Your task to perform on an android device: turn on the 12-hour format for clock Image 0: 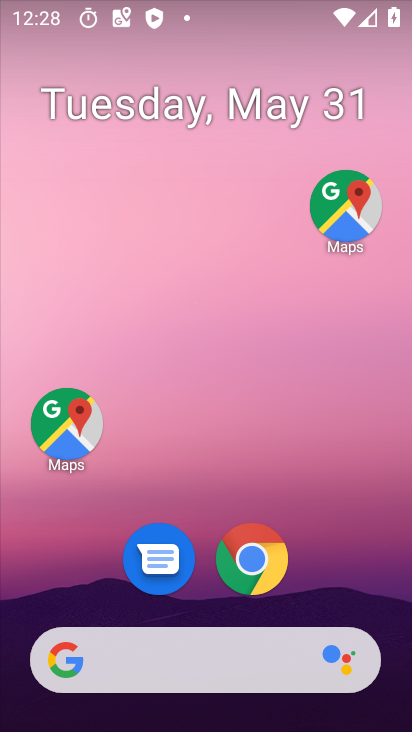
Step 0: drag from (363, 535) to (367, 88)
Your task to perform on an android device: turn on the 12-hour format for clock Image 1: 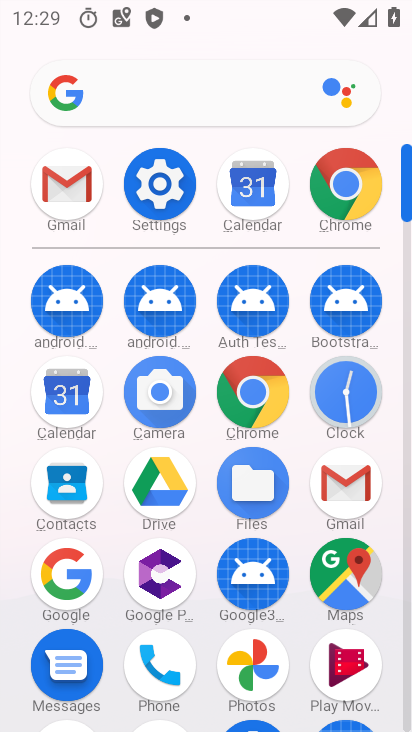
Step 1: click (342, 409)
Your task to perform on an android device: turn on the 12-hour format for clock Image 2: 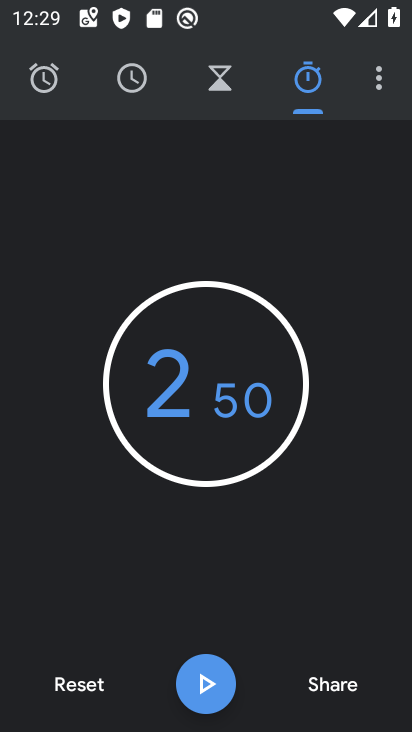
Step 2: click (385, 78)
Your task to perform on an android device: turn on the 12-hour format for clock Image 3: 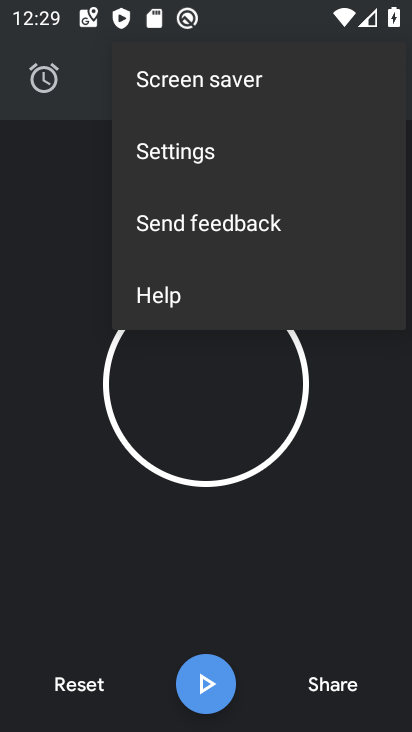
Step 3: click (203, 158)
Your task to perform on an android device: turn on the 12-hour format for clock Image 4: 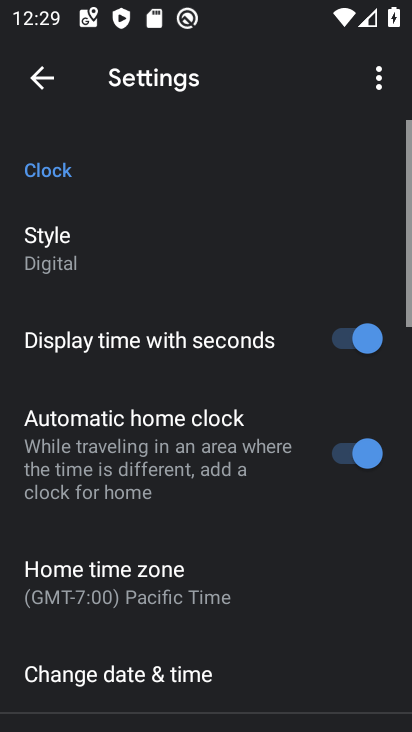
Step 4: drag from (218, 594) to (230, 171)
Your task to perform on an android device: turn on the 12-hour format for clock Image 5: 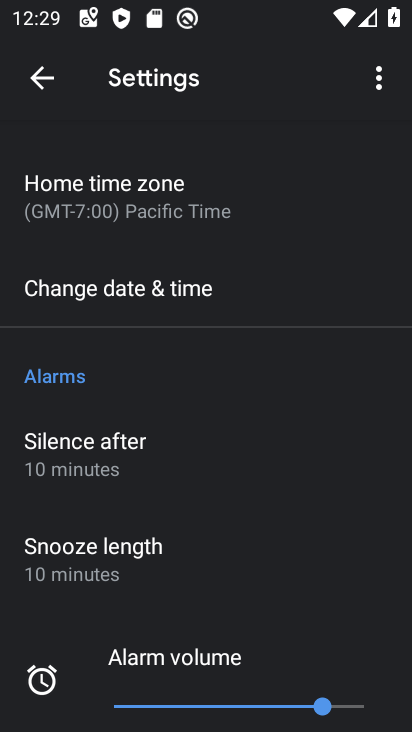
Step 5: click (175, 297)
Your task to perform on an android device: turn on the 12-hour format for clock Image 6: 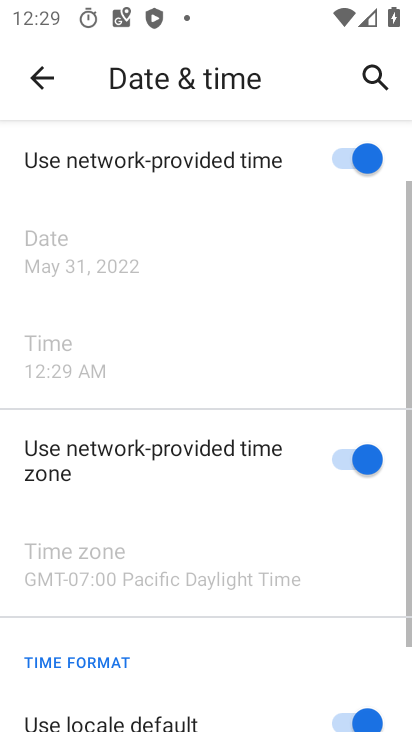
Step 6: task complete